Your task to perform on an android device: Open calendar and show me the third week of next month Image 0: 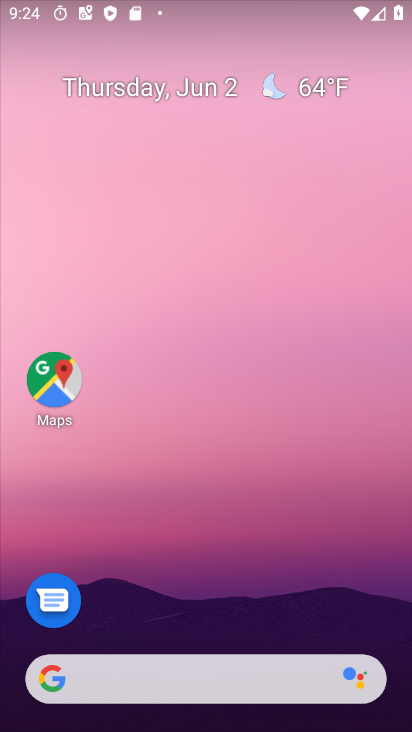
Step 0: drag from (168, 596) to (192, 97)
Your task to perform on an android device: Open calendar and show me the third week of next month Image 1: 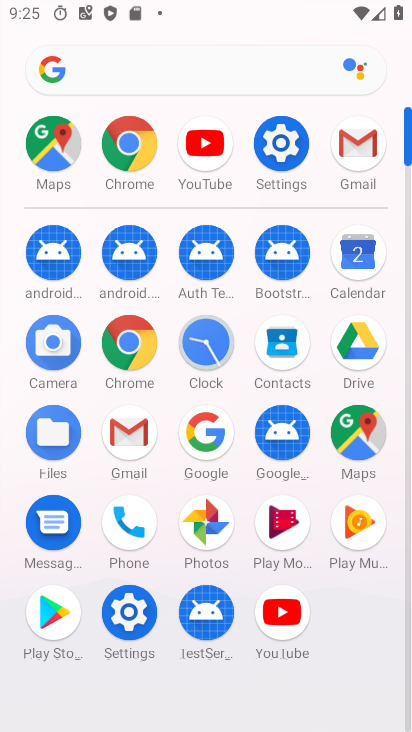
Step 1: click (353, 250)
Your task to perform on an android device: Open calendar and show me the third week of next month Image 2: 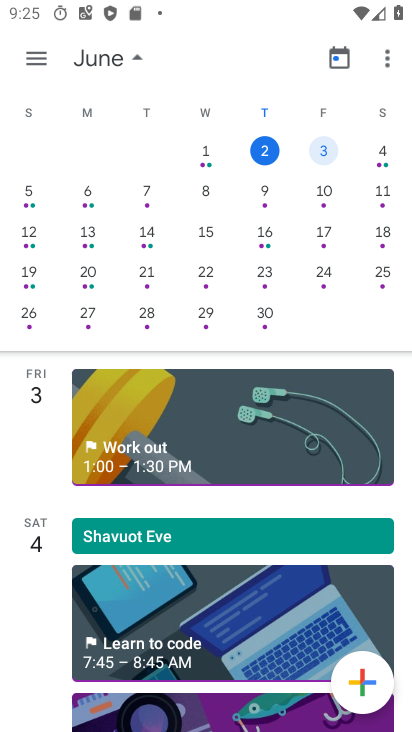
Step 2: click (270, 235)
Your task to perform on an android device: Open calendar and show me the third week of next month Image 3: 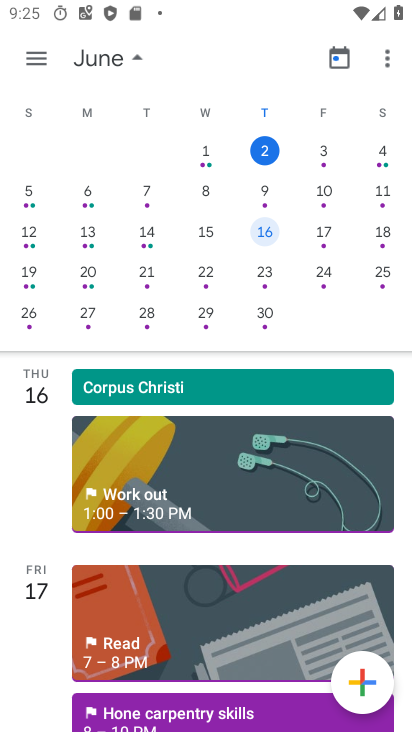
Step 3: task complete